Your task to perform on an android device: Go to internet settings Image 0: 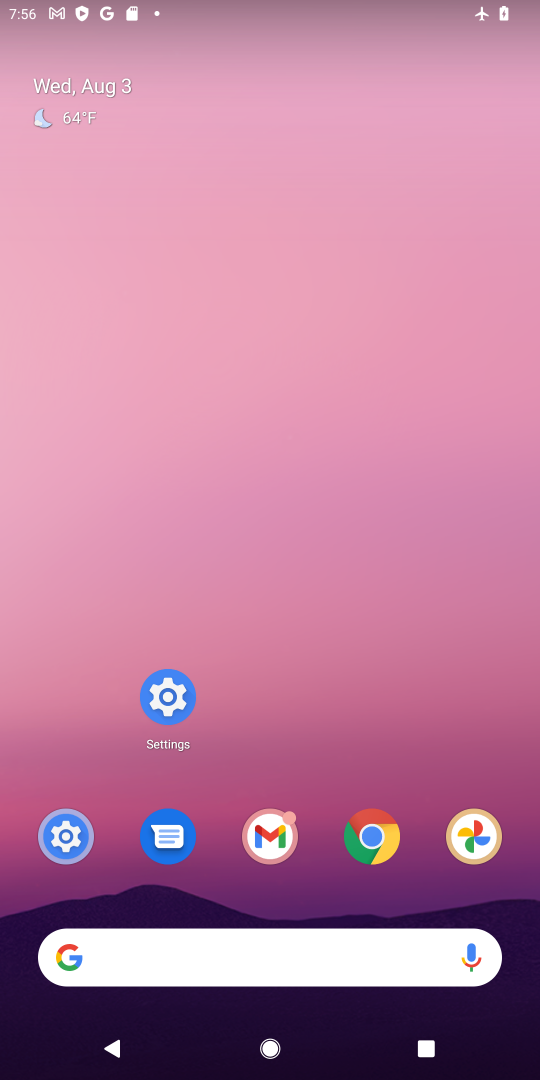
Step 0: click (168, 692)
Your task to perform on an android device: Go to internet settings Image 1: 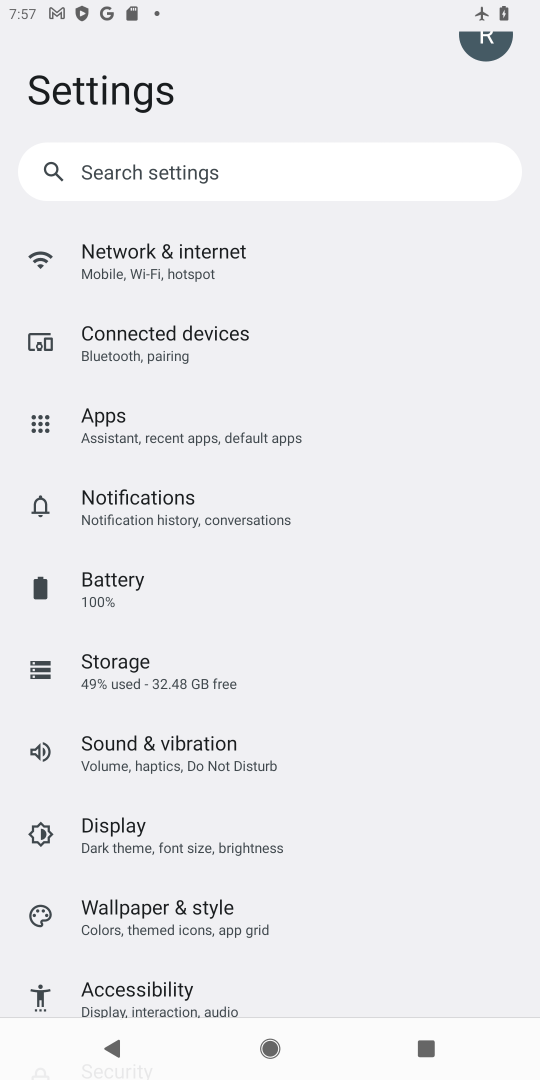
Step 1: click (167, 276)
Your task to perform on an android device: Go to internet settings Image 2: 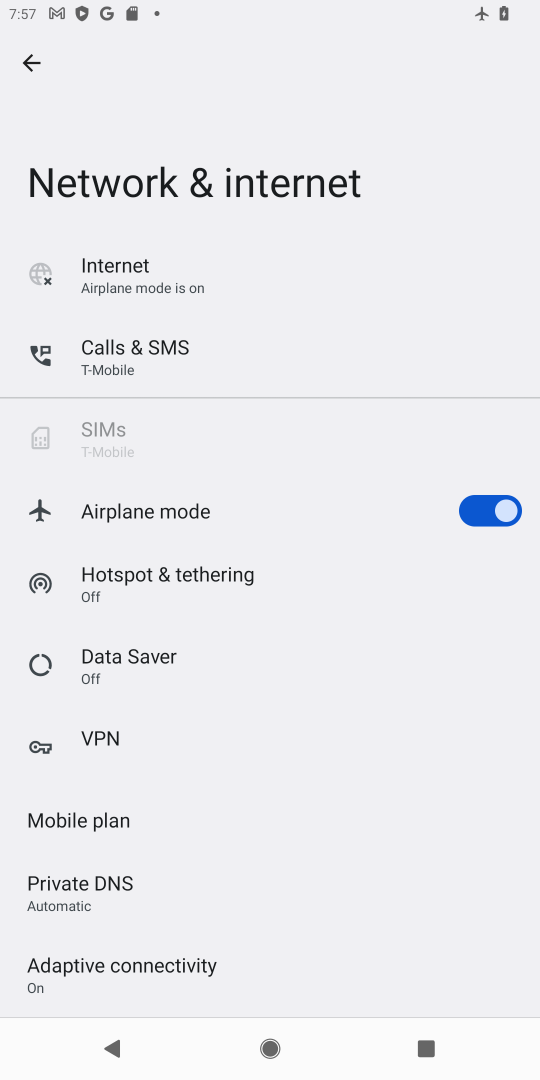
Step 2: task complete